Your task to perform on an android device: Search for "usb-c to usb-b" on bestbuy.com, select the first entry, add it to the cart, then select checkout. Image 0: 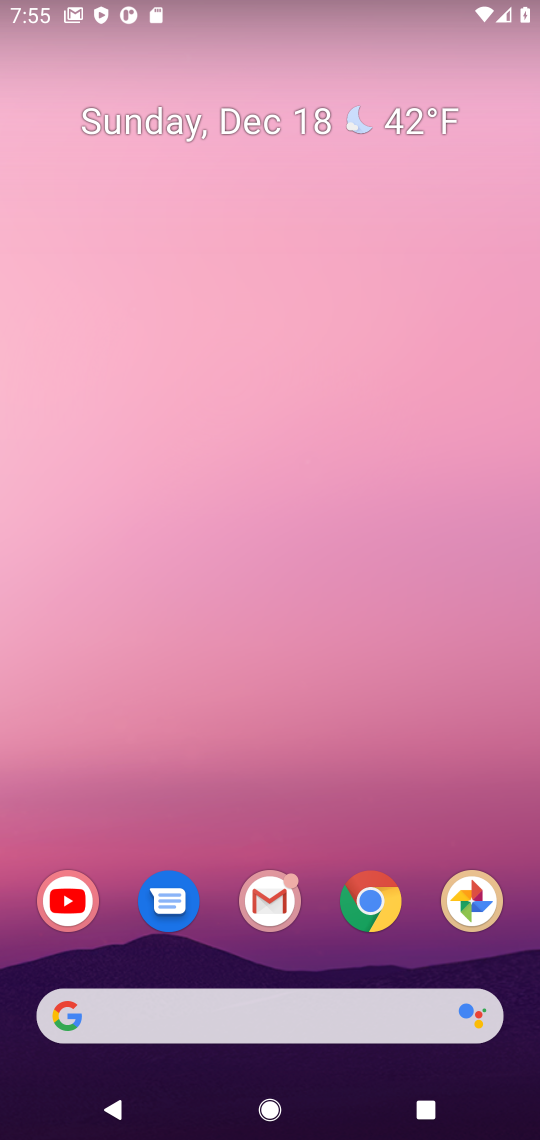
Step 0: click (358, 887)
Your task to perform on an android device: Search for "usb-c to usb-b" on bestbuy.com, select the first entry, add it to the cart, then select checkout. Image 1: 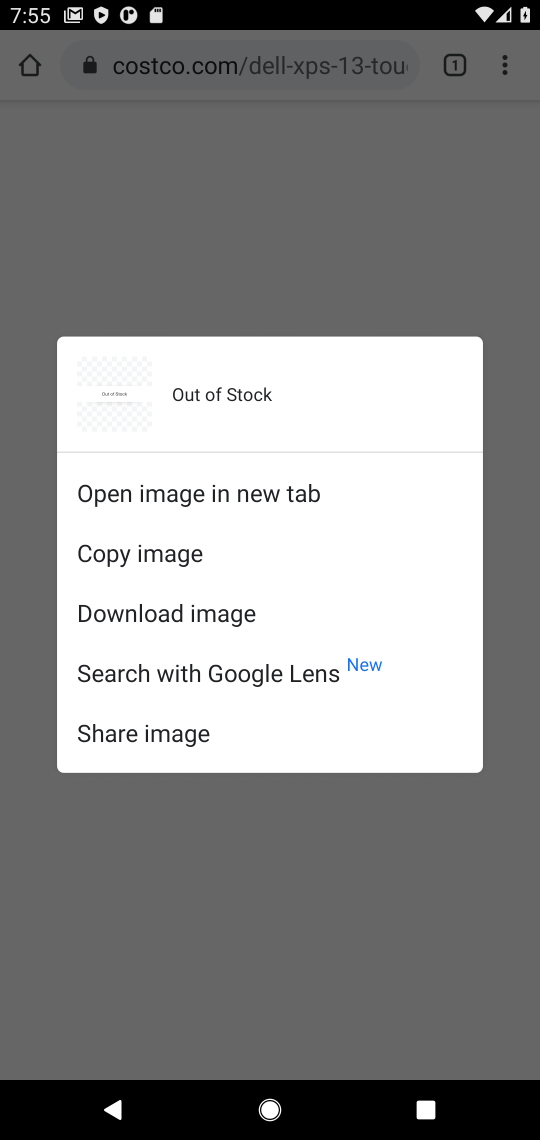
Step 1: press home button
Your task to perform on an android device: Search for "usb-c to usb-b" on bestbuy.com, select the first entry, add it to the cart, then select checkout. Image 2: 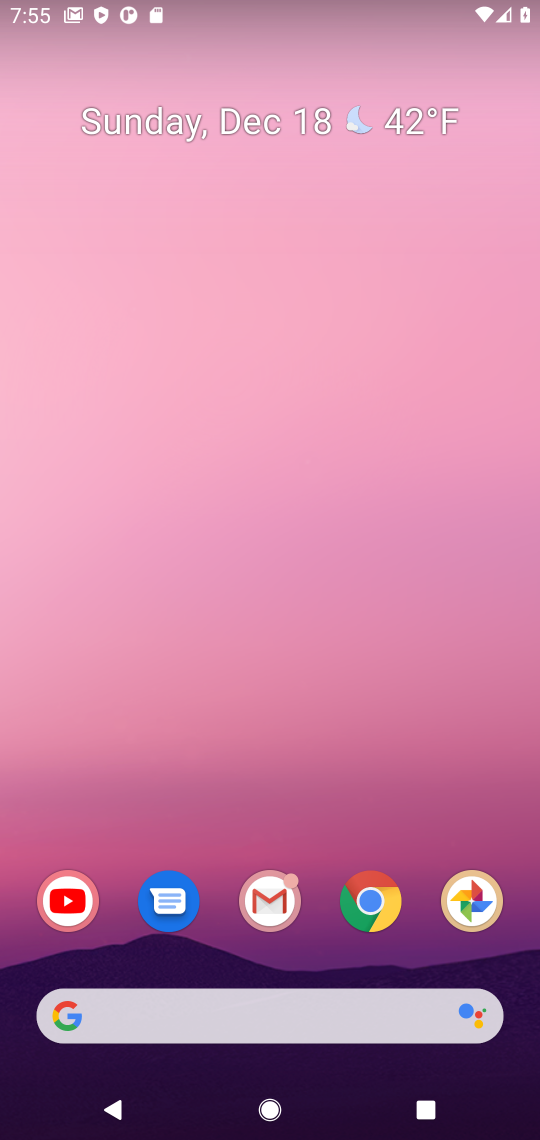
Step 2: click (385, 914)
Your task to perform on an android device: Search for "usb-c to usb-b" on bestbuy.com, select the first entry, add it to the cart, then select checkout. Image 3: 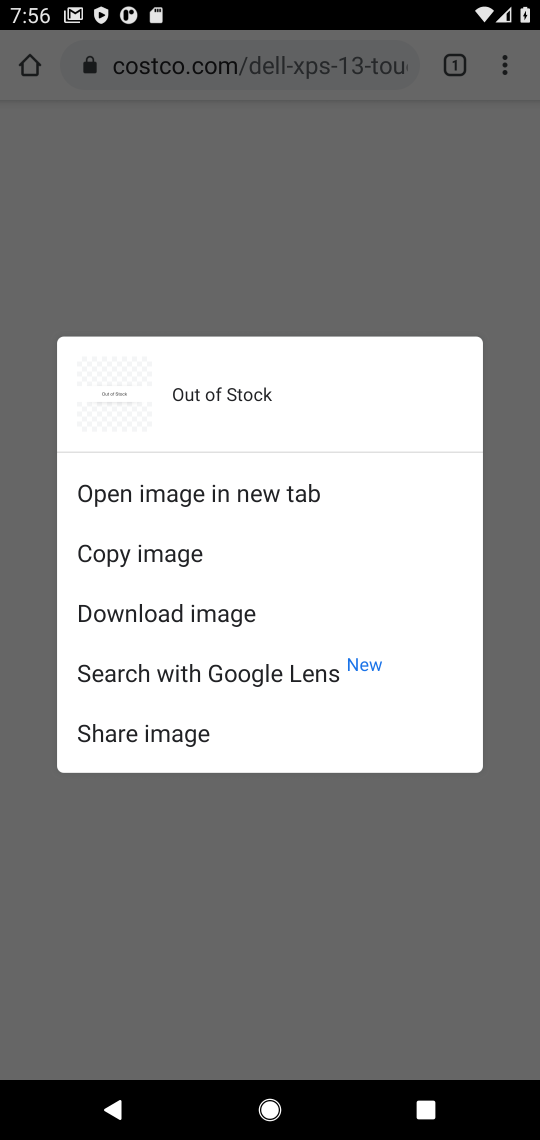
Step 3: click (226, 1031)
Your task to perform on an android device: Search for "usb-c to usb-b" on bestbuy.com, select the first entry, add it to the cart, then select checkout. Image 4: 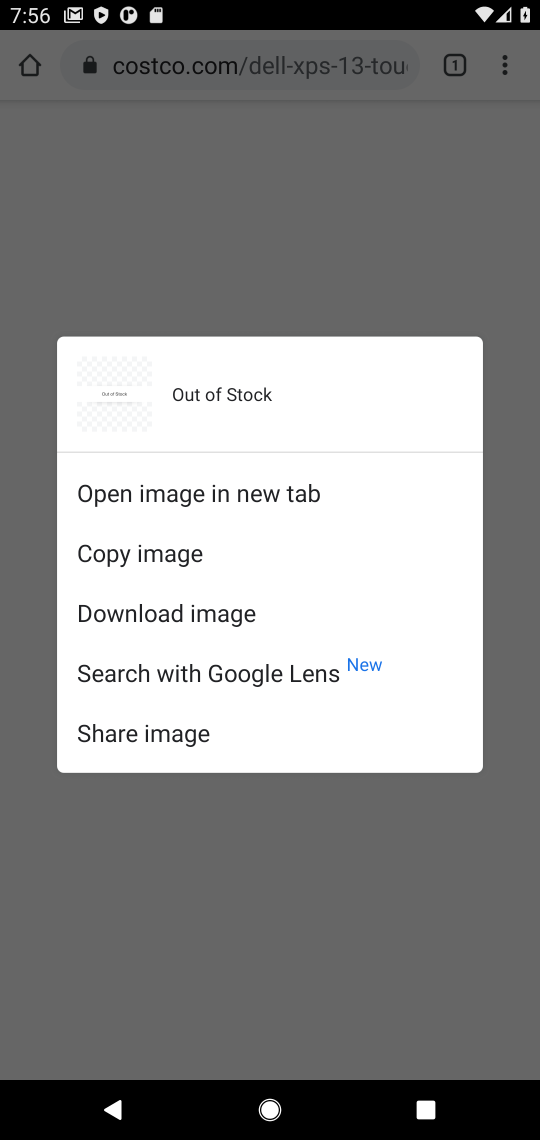
Step 4: click (226, 1031)
Your task to perform on an android device: Search for "usb-c to usb-b" on bestbuy.com, select the first entry, add it to the cart, then select checkout. Image 5: 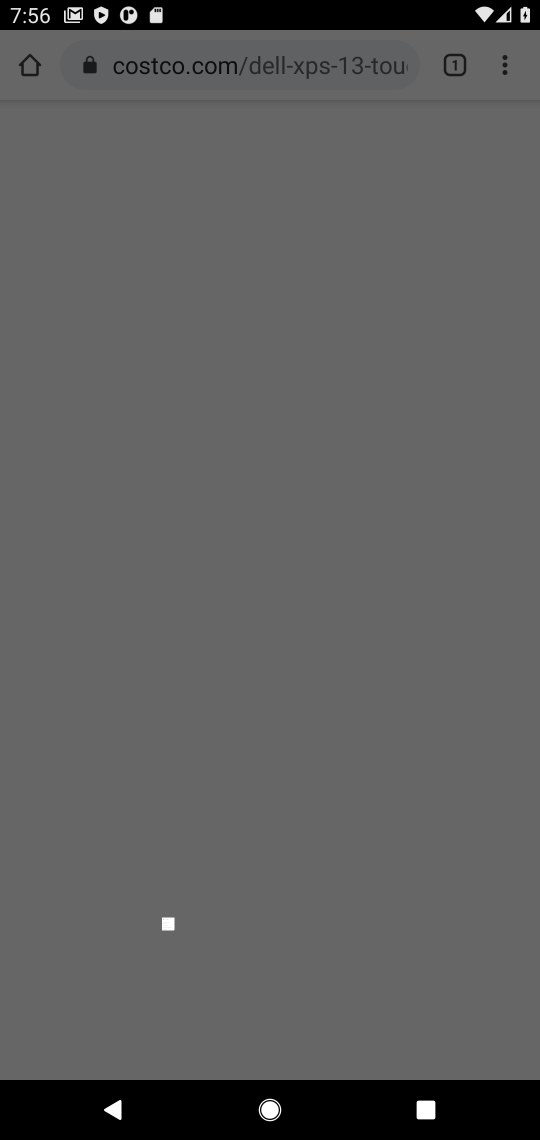
Step 5: click (226, 1031)
Your task to perform on an android device: Search for "usb-c to usb-b" on bestbuy.com, select the first entry, add it to the cart, then select checkout. Image 6: 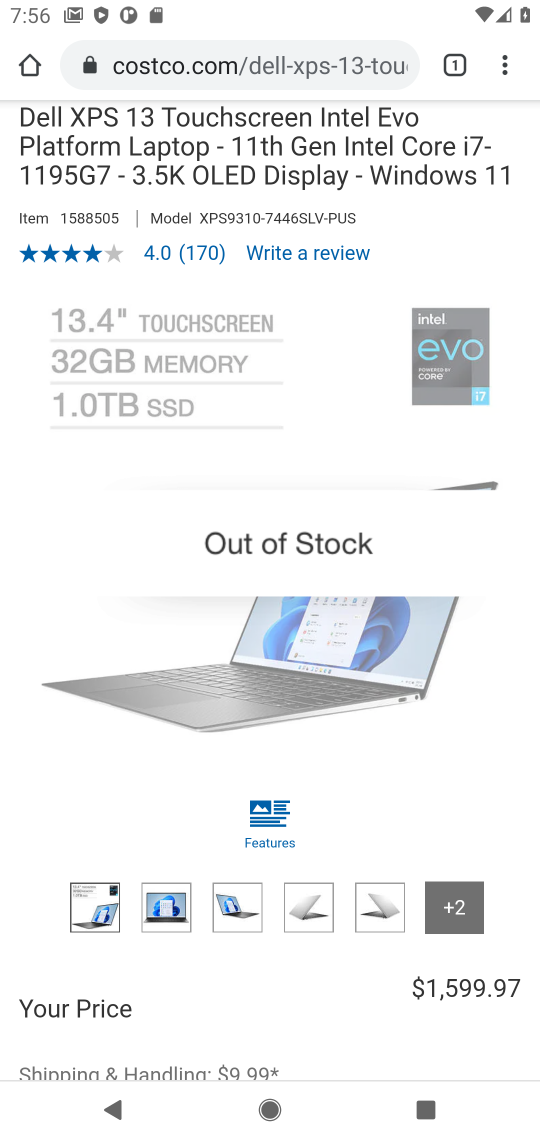
Step 6: click (284, 50)
Your task to perform on an android device: Search for "usb-c to usb-b" on bestbuy.com, select the first entry, add it to the cart, then select checkout. Image 7: 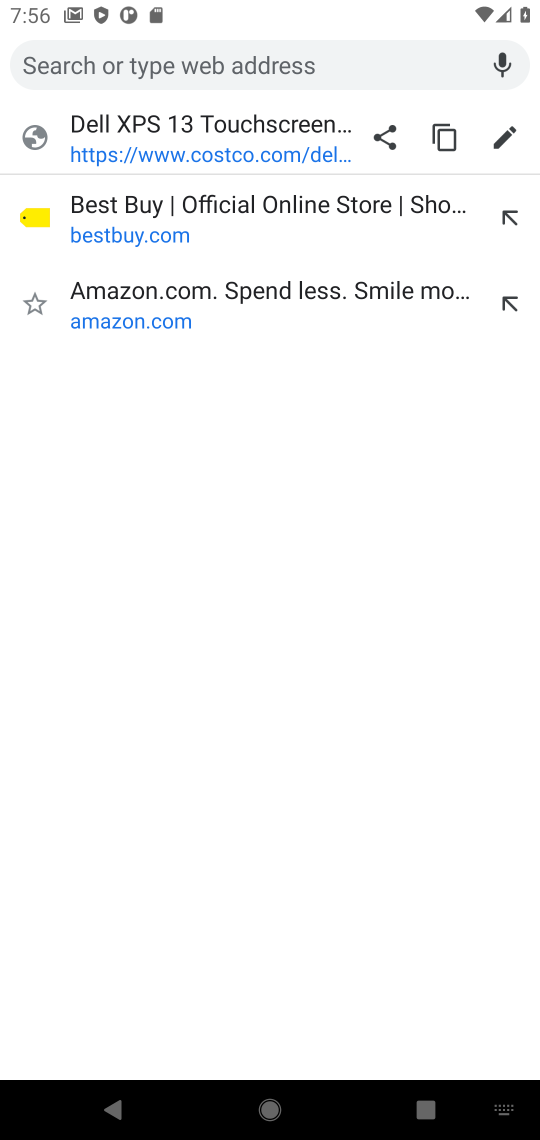
Step 7: click (220, 240)
Your task to perform on an android device: Search for "usb-c to usb-b" on bestbuy.com, select the first entry, add it to the cart, then select checkout. Image 8: 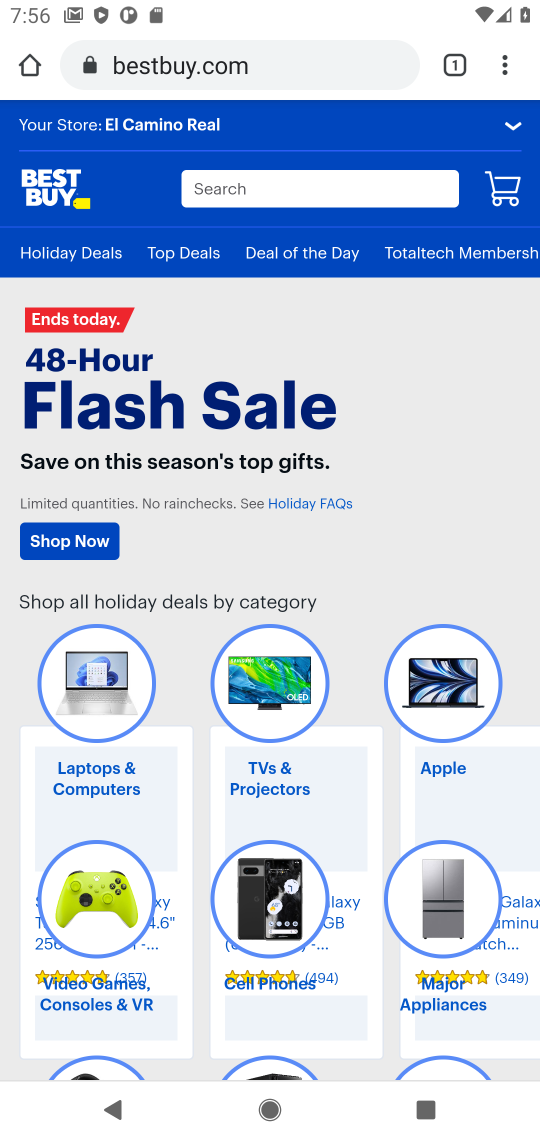
Step 8: click (238, 193)
Your task to perform on an android device: Search for "usb-c to usb-b" on bestbuy.com, select the first entry, add it to the cart, then select checkout. Image 9: 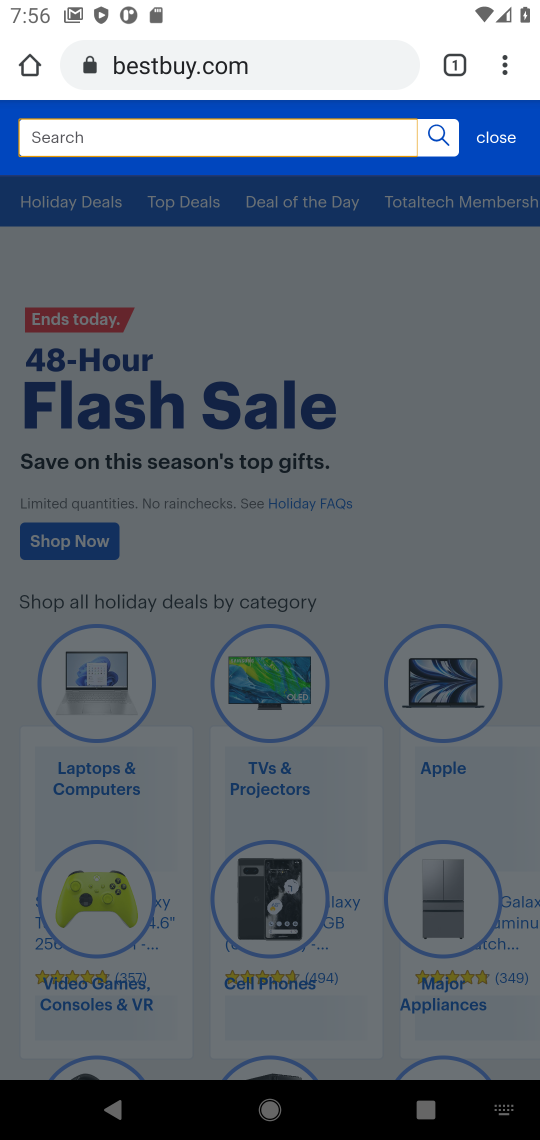
Step 9: type "usb-c to usb-b"
Your task to perform on an android device: Search for "usb-c to usb-b" on bestbuy.com, select the first entry, add it to the cart, then select checkout. Image 10: 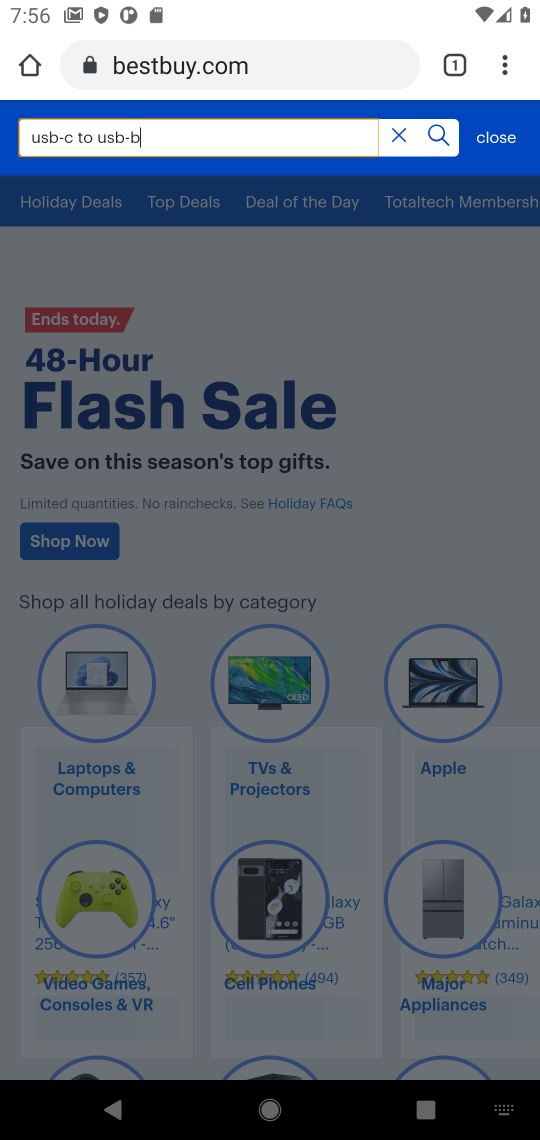
Step 10: click (441, 138)
Your task to perform on an android device: Search for "usb-c to usb-b" on bestbuy.com, select the first entry, add it to the cart, then select checkout. Image 11: 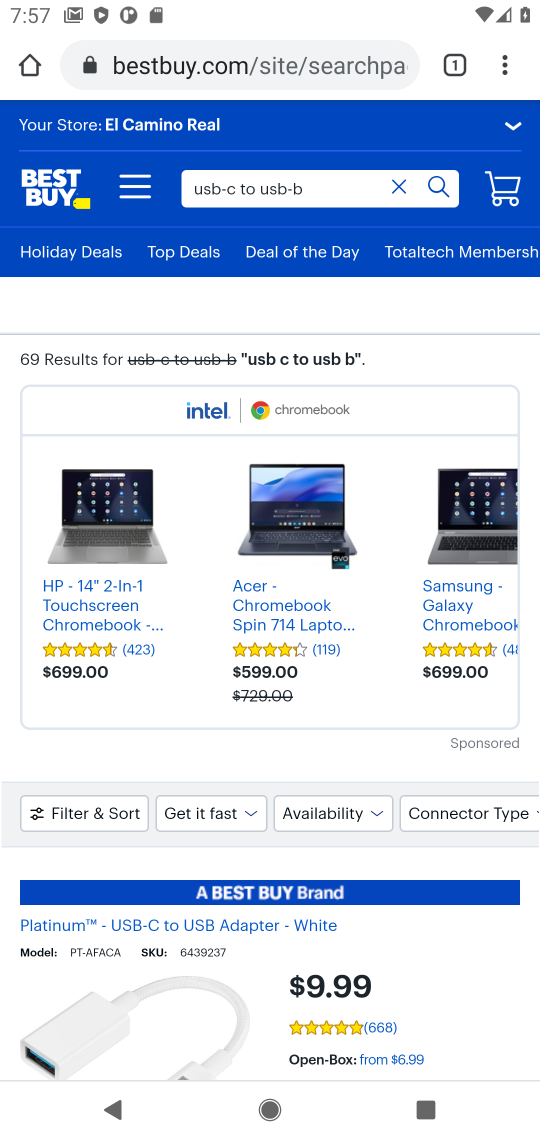
Step 11: click (346, 978)
Your task to perform on an android device: Search for "usb-c to usb-b" on bestbuy.com, select the first entry, add it to the cart, then select checkout. Image 12: 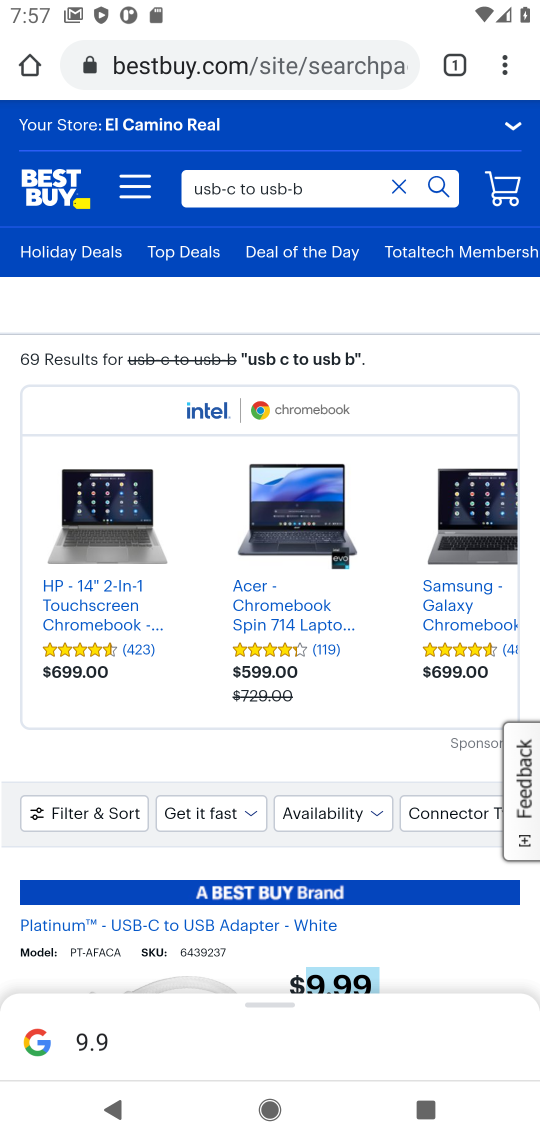
Step 12: click (471, 909)
Your task to perform on an android device: Search for "usb-c to usb-b" on bestbuy.com, select the first entry, add it to the cart, then select checkout. Image 13: 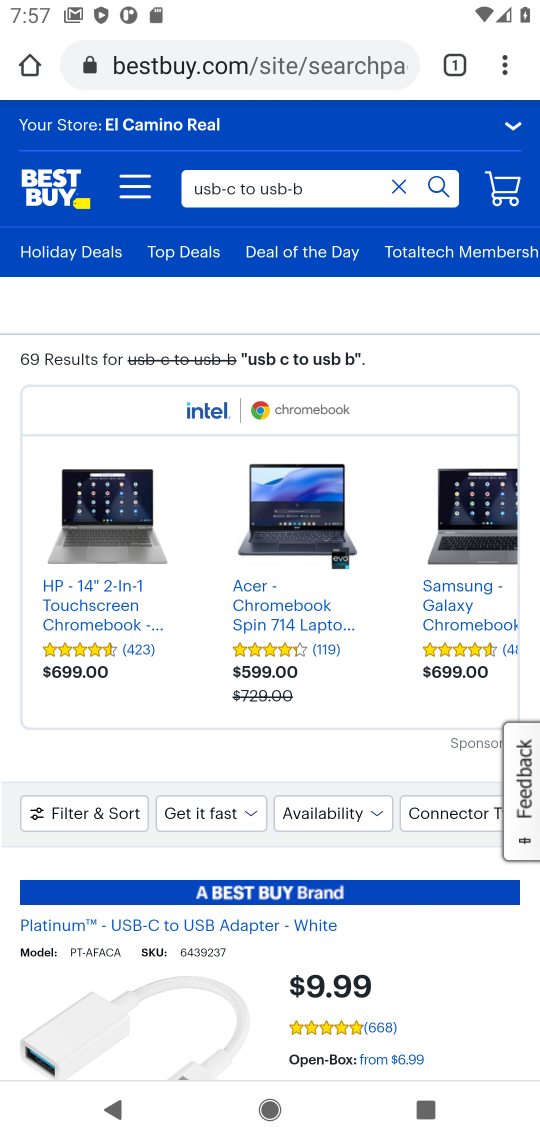
Step 13: task complete